Your task to perform on an android device: open a new tab in the chrome app Image 0: 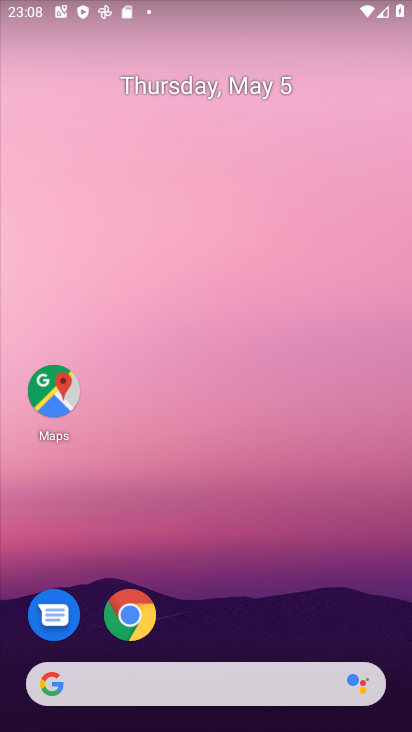
Step 0: click (128, 609)
Your task to perform on an android device: open a new tab in the chrome app Image 1: 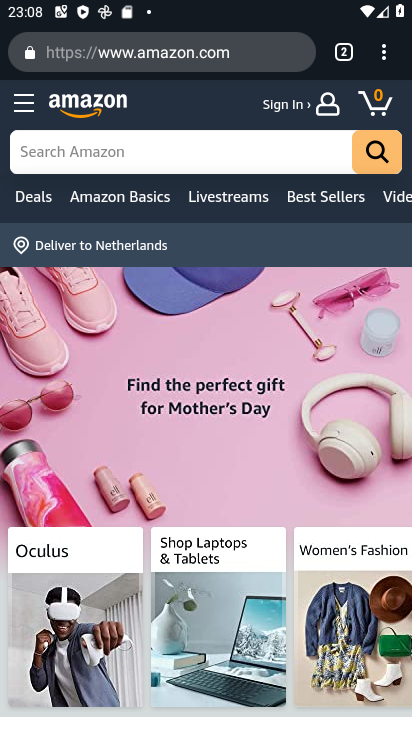
Step 1: click (341, 53)
Your task to perform on an android device: open a new tab in the chrome app Image 2: 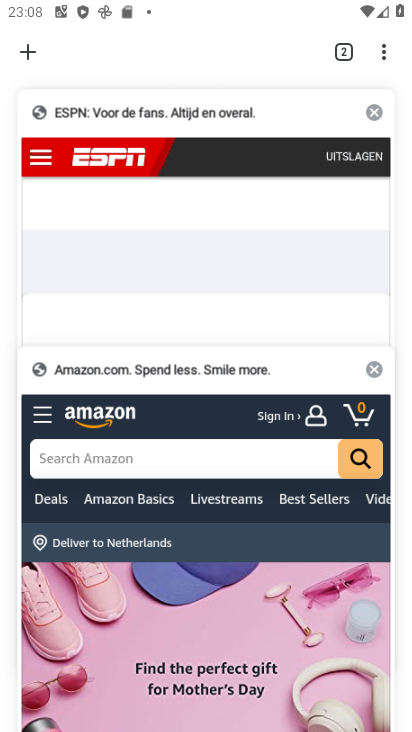
Step 2: click (27, 48)
Your task to perform on an android device: open a new tab in the chrome app Image 3: 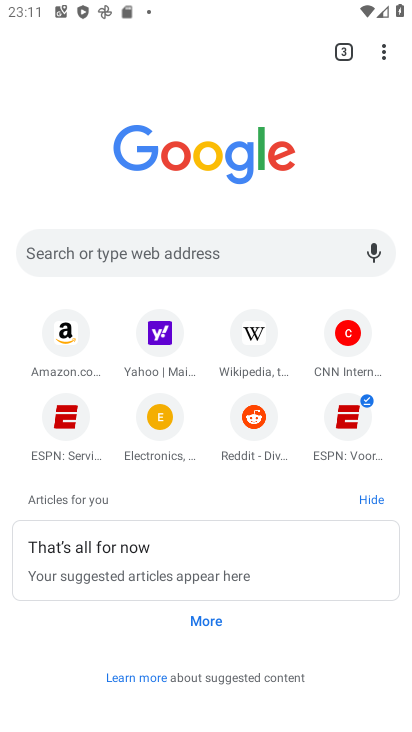
Step 3: task complete